Your task to perform on an android device: toggle data saver in the chrome app Image 0: 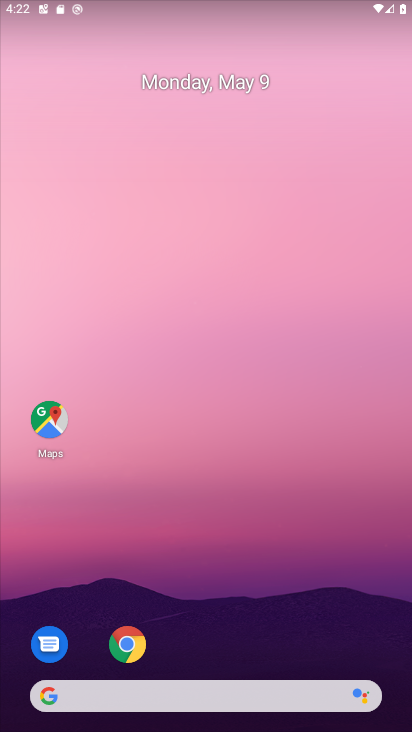
Step 0: click (126, 643)
Your task to perform on an android device: toggle data saver in the chrome app Image 1: 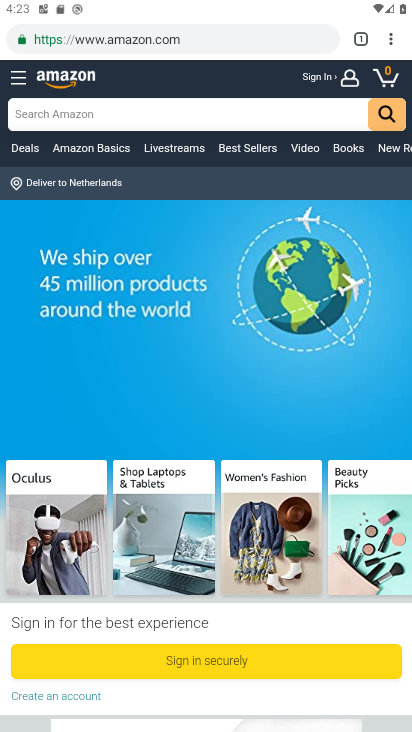
Step 1: click (391, 42)
Your task to perform on an android device: toggle data saver in the chrome app Image 2: 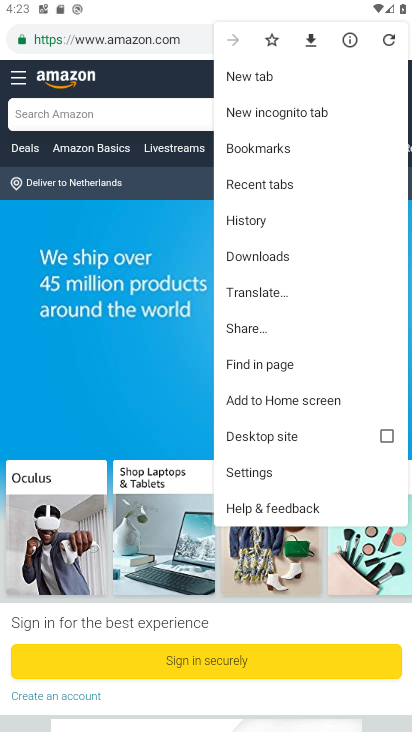
Step 2: click (249, 472)
Your task to perform on an android device: toggle data saver in the chrome app Image 3: 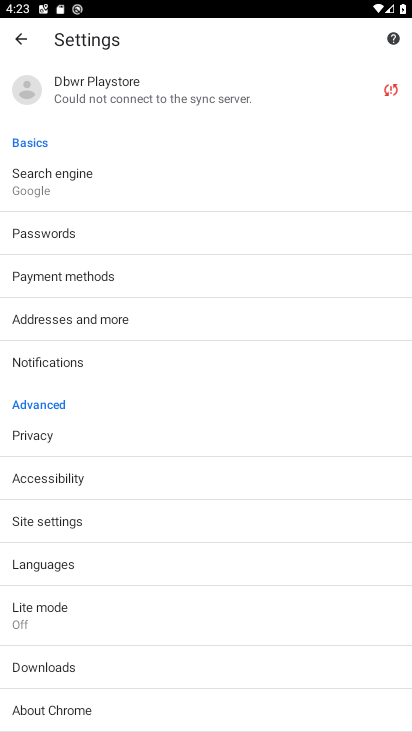
Step 3: click (47, 606)
Your task to perform on an android device: toggle data saver in the chrome app Image 4: 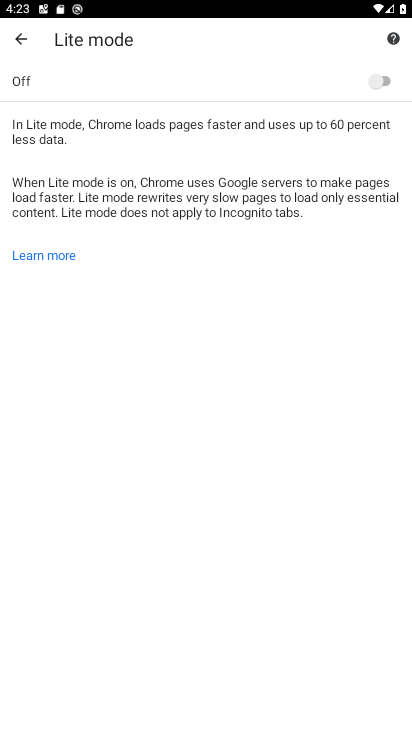
Step 4: click (380, 78)
Your task to perform on an android device: toggle data saver in the chrome app Image 5: 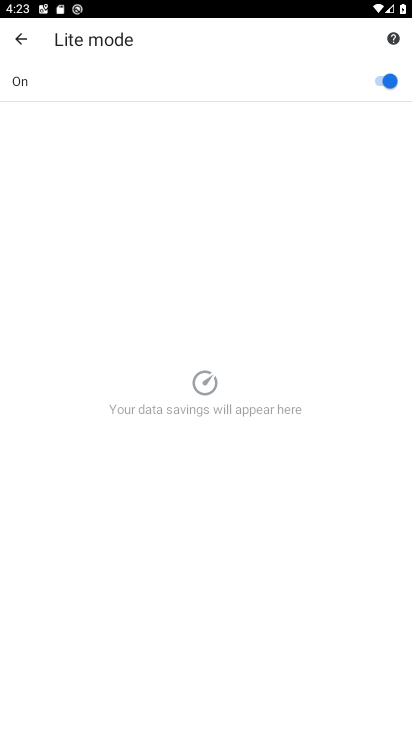
Step 5: task complete